Your task to perform on an android device: Go to Google Image 0: 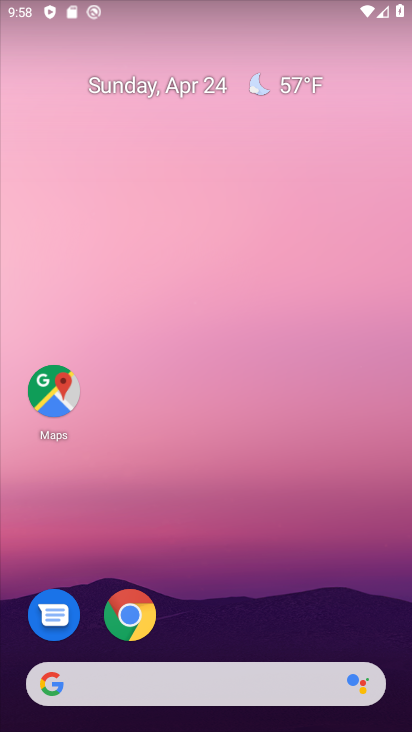
Step 0: click (129, 619)
Your task to perform on an android device: Go to Google Image 1: 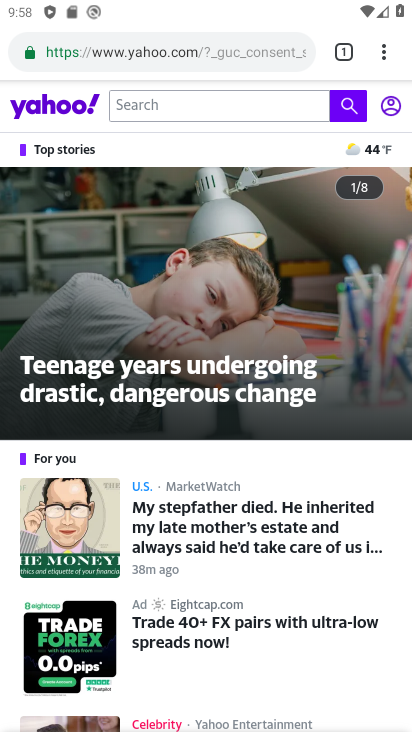
Step 1: click (383, 52)
Your task to perform on an android device: Go to Google Image 2: 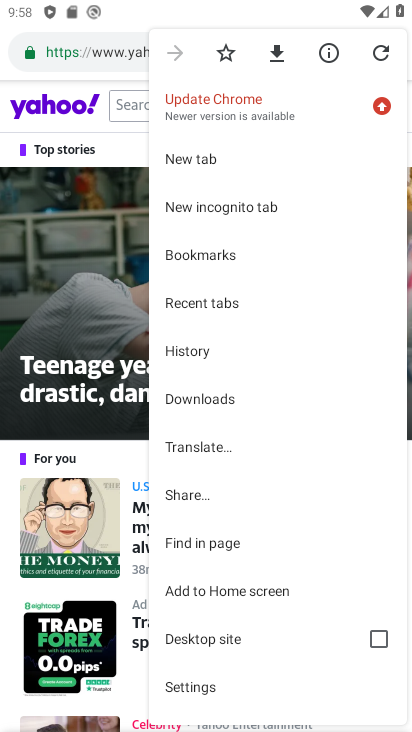
Step 2: task complete